Your task to perform on an android device: Open the map Image 0: 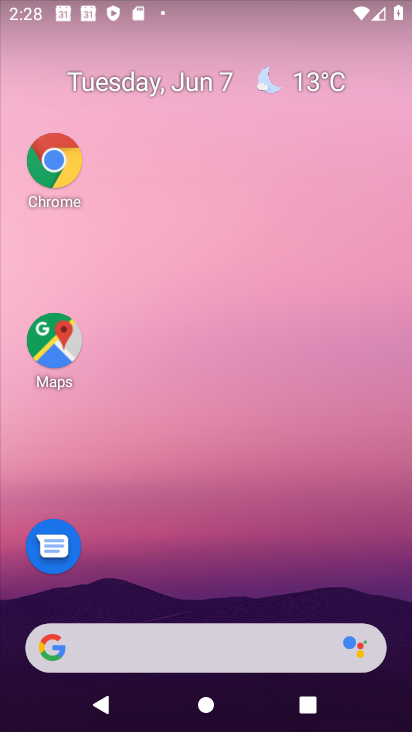
Step 0: drag from (205, 582) to (212, 188)
Your task to perform on an android device: Open the map Image 1: 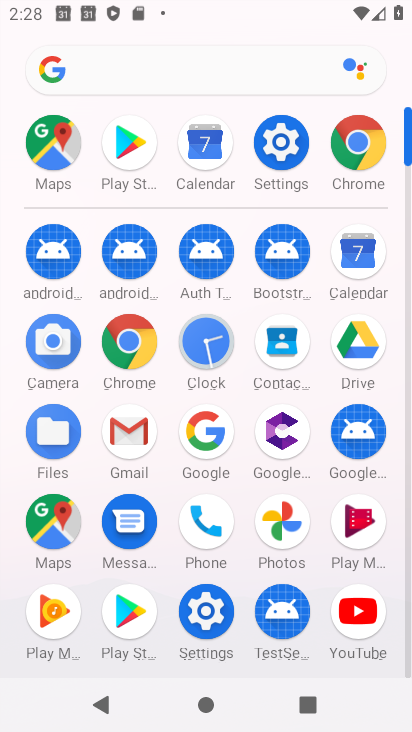
Step 1: click (65, 512)
Your task to perform on an android device: Open the map Image 2: 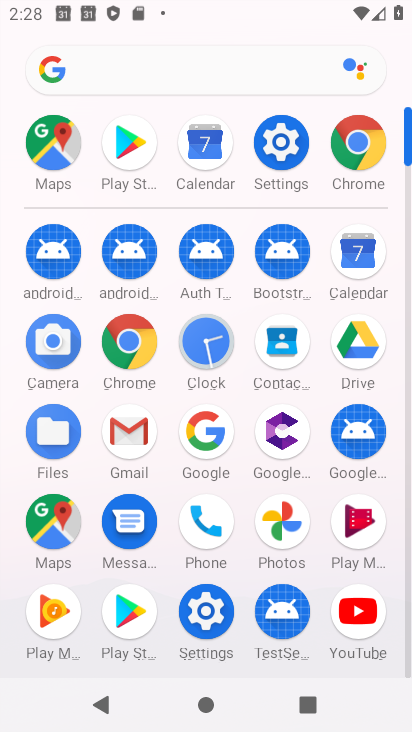
Step 2: click (65, 512)
Your task to perform on an android device: Open the map Image 3: 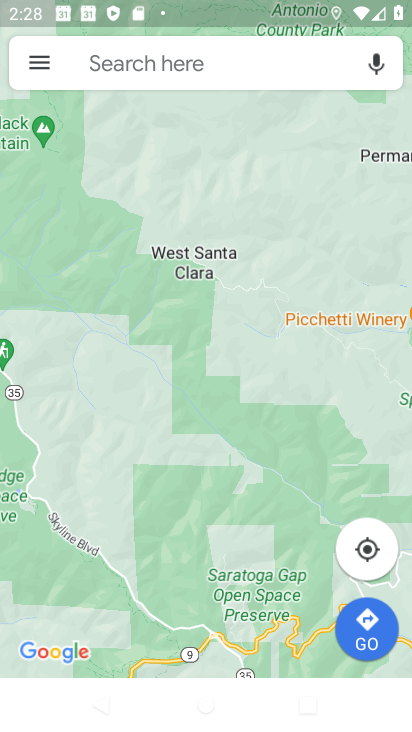
Step 3: task complete